Your task to perform on an android device: Search for flights from Mexico city to Seattle Image 0: 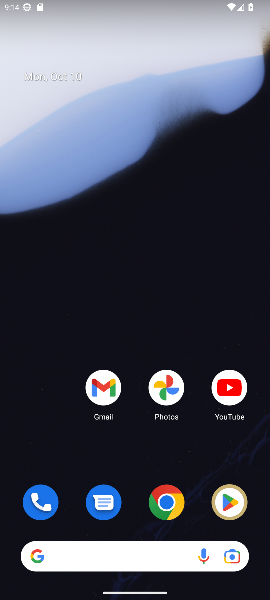
Step 0: click (129, 547)
Your task to perform on an android device: Search for flights from Mexico city to Seattle Image 1: 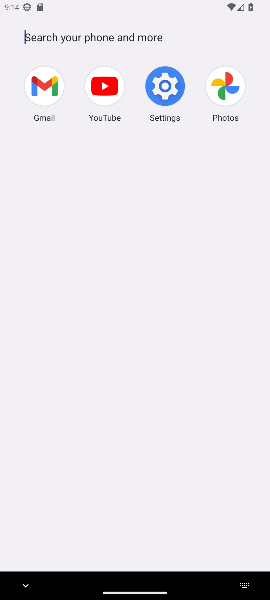
Step 1: type "flights from Mexico city to Seattle"
Your task to perform on an android device: Search for flights from Mexico city to Seattle Image 2: 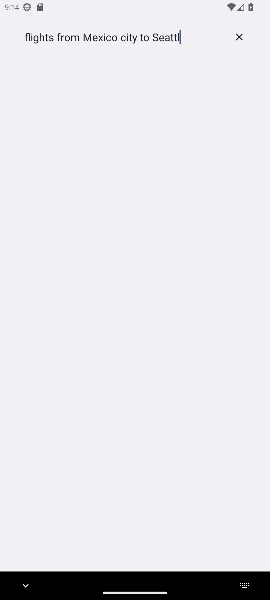
Step 2: type ""
Your task to perform on an android device: Search for flights from Mexico city to Seattle Image 3: 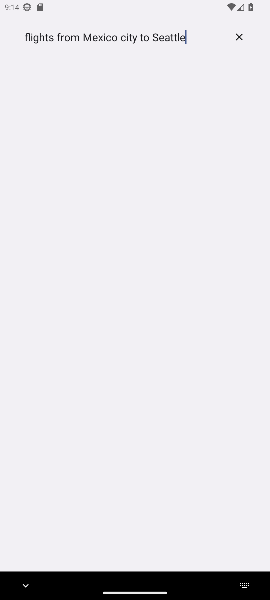
Step 3: press enter
Your task to perform on an android device: Search for flights from Mexico city to Seattle Image 4: 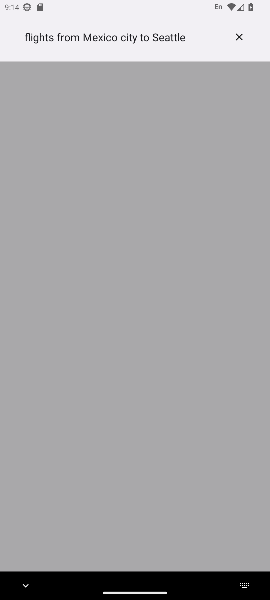
Step 4: press enter
Your task to perform on an android device: Search for flights from Mexico city to Seattle Image 5: 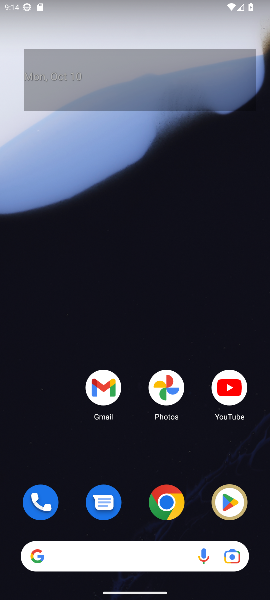
Step 5: click (133, 556)
Your task to perform on an android device: Search for flights from Mexico city to Seattle Image 6: 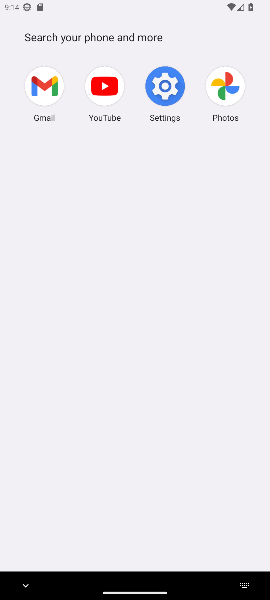
Step 6: type "flights from Mexico city to Seattle"
Your task to perform on an android device: Search for flights from Mexico city to Seattle Image 7: 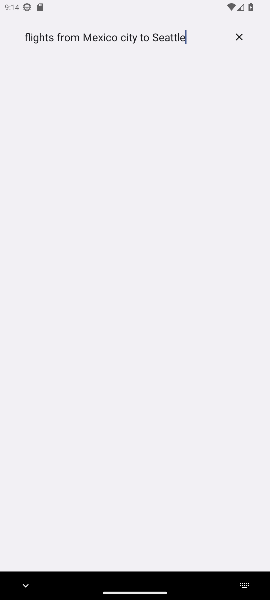
Step 7: type ""
Your task to perform on an android device: Search for flights from Mexico city to Seattle Image 8: 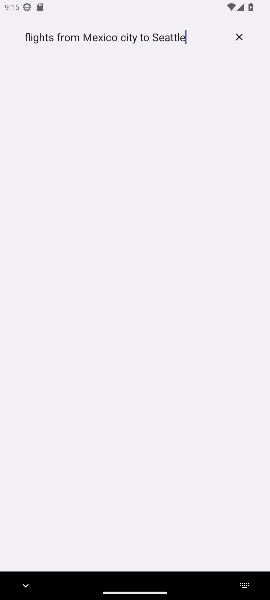
Step 8: press enter
Your task to perform on an android device: Search for flights from Mexico city to Seattle Image 9: 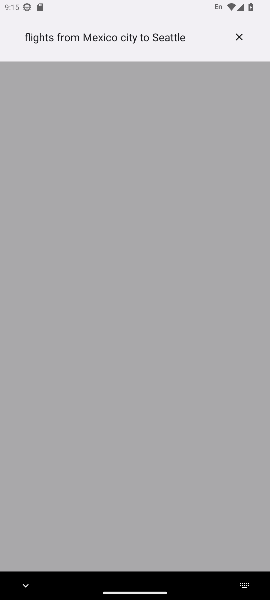
Step 9: press enter
Your task to perform on an android device: Search for flights from Mexico city to Seattle Image 10: 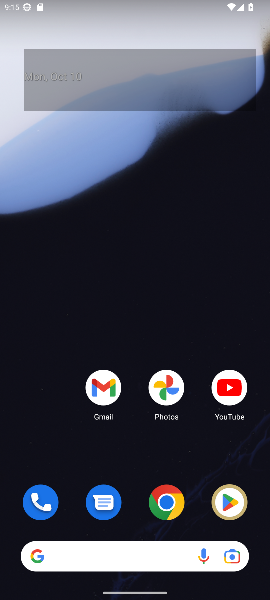
Step 10: click (118, 116)
Your task to perform on an android device: Search for flights from Mexico city to Seattle Image 11: 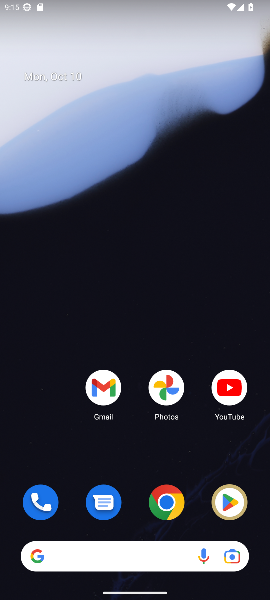
Step 11: click (164, 503)
Your task to perform on an android device: Search for flights from Mexico city to Seattle Image 12: 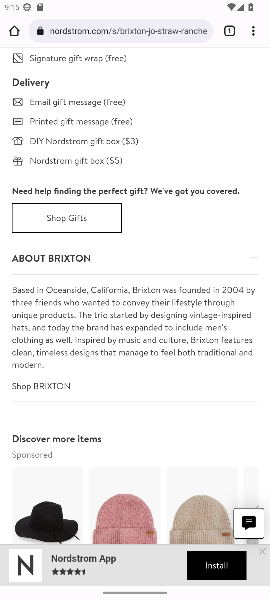
Step 12: click (137, 27)
Your task to perform on an android device: Search for flights from Mexico city to Seattle Image 13: 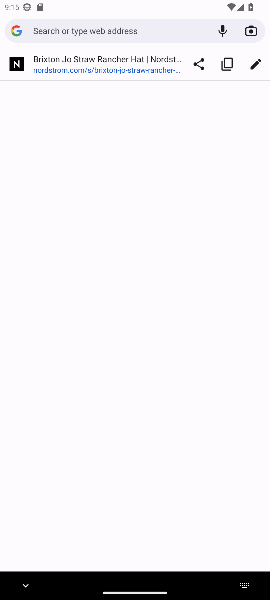
Step 13: type "flights from Mexico city to Seattle"
Your task to perform on an android device: Search for flights from Mexico city to Seattle Image 14: 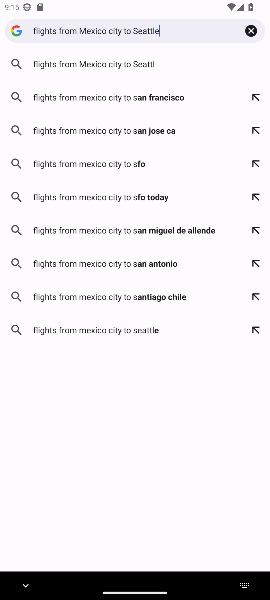
Step 14: type ""
Your task to perform on an android device: Search for flights from Mexico city to Seattle Image 15: 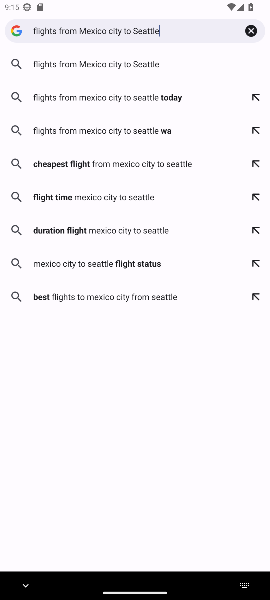
Step 15: click (116, 66)
Your task to perform on an android device: Search for flights from Mexico city to Seattle Image 16: 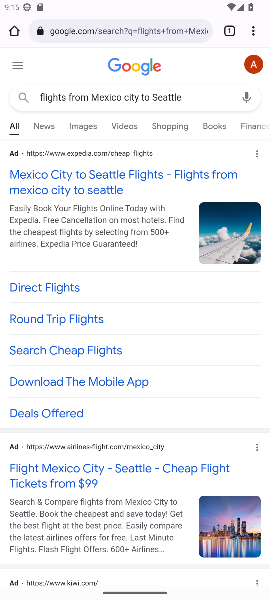
Step 16: drag from (93, 454) to (95, 150)
Your task to perform on an android device: Search for flights from Mexico city to Seattle Image 17: 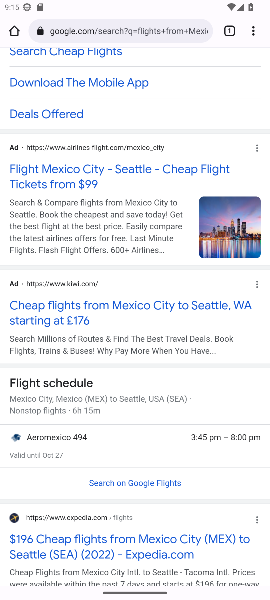
Step 17: click (88, 176)
Your task to perform on an android device: Search for flights from Mexico city to Seattle Image 18: 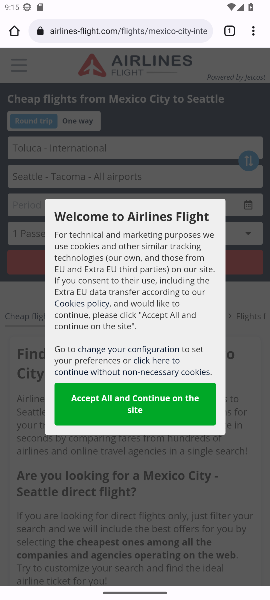
Step 18: click (133, 417)
Your task to perform on an android device: Search for flights from Mexico city to Seattle Image 19: 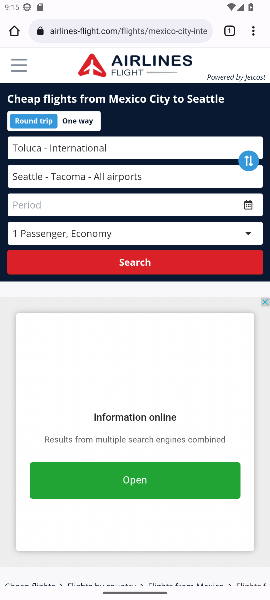
Step 19: drag from (149, 447) to (139, 253)
Your task to perform on an android device: Search for flights from Mexico city to Seattle Image 20: 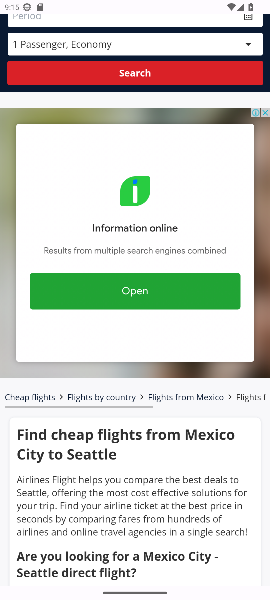
Step 20: drag from (170, 417) to (172, 155)
Your task to perform on an android device: Search for flights from Mexico city to Seattle Image 21: 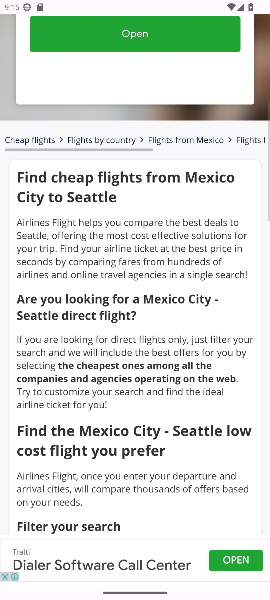
Step 21: drag from (179, 381) to (185, 181)
Your task to perform on an android device: Search for flights from Mexico city to Seattle Image 22: 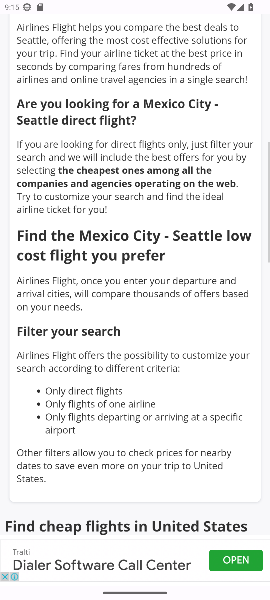
Step 22: drag from (228, 416) to (225, 160)
Your task to perform on an android device: Search for flights from Mexico city to Seattle Image 23: 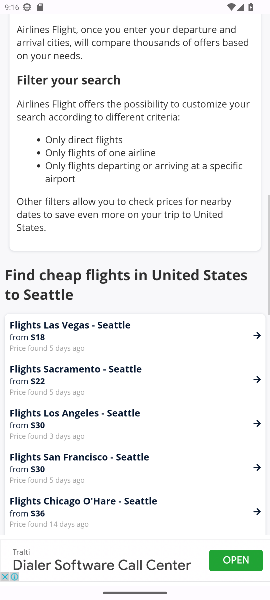
Step 23: drag from (215, 401) to (220, 149)
Your task to perform on an android device: Search for flights from Mexico city to Seattle Image 24: 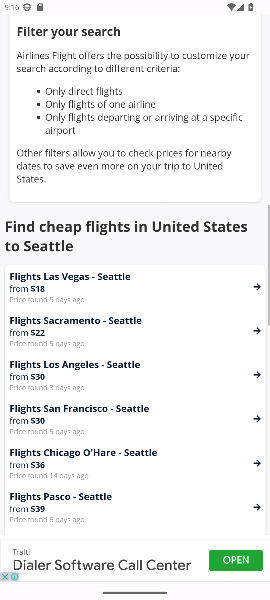
Step 24: press back button
Your task to perform on an android device: Search for flights from Mexico city to Seattle Image 25: 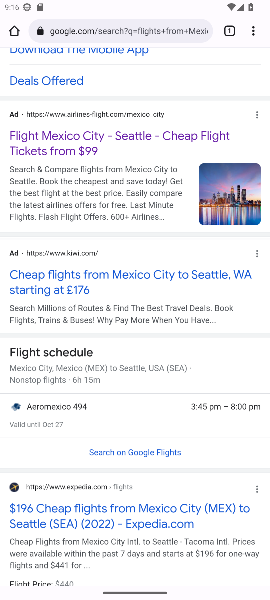
Step 25: drag from (136, 400) to (162, 70)
Your task to perform on an android device: Search for flights from Mexico city to Seattle Image 26: 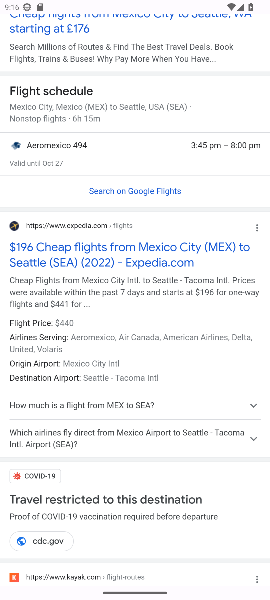
Step 26: click (167, 257)
Your task to perform on an android device: Search for flights from Mexico city to Seattle Image 27: 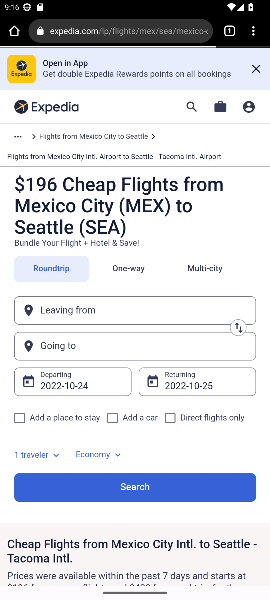
Step 27: drag from (167, 464) to (182, 107)
Your task to perform on an android device: Search for flights from Mexico city to Seattle Image 28: 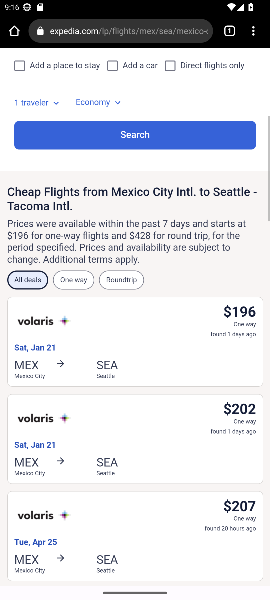
Step 28: drag from (168, 427) to (182, 155)
Your task to perform on an android device: Search for flights from Mexico city to Seattle Image 29: 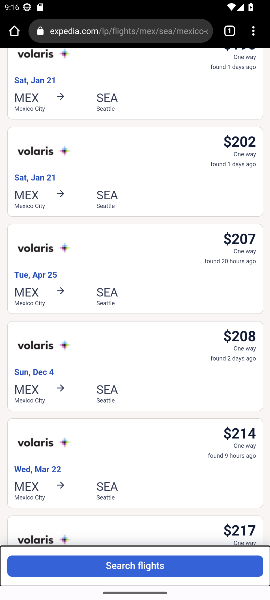
Step 29: drag from (174, 333) to (160, 144)
Your task to perform on an android device: Search for flights from Mexico city to Seattle Image 30: 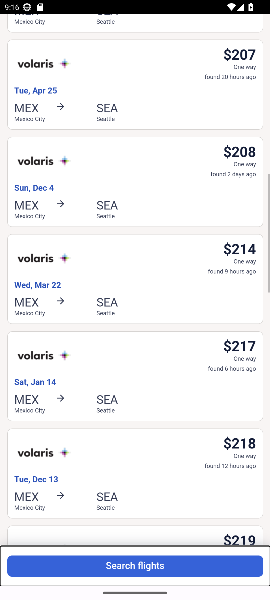
Step 30: drag from (159, 336) to (156, 130)
Your task to perform on an android device: Search for flights from Mexico city to Seattle Image 31: 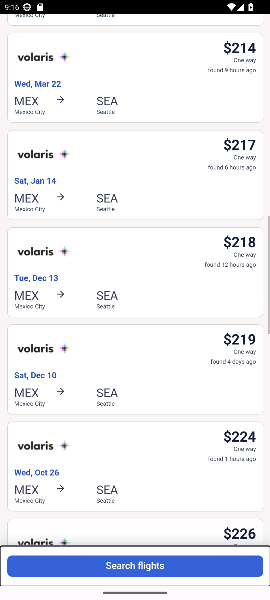
Step 31: drag from (154, 331) to (158, 165)
Your task to perform on an android device: Search for flights from Mexico city to Seattle Image 32: 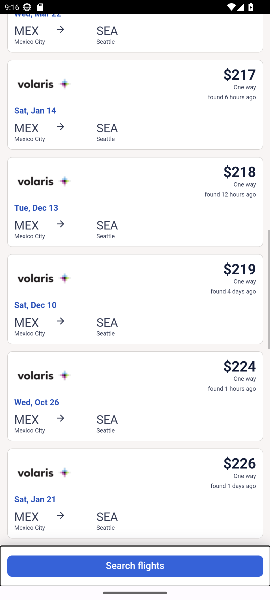
Step 32: drag from (159, 303) to (149, 164)
Your task to perform on an android device: Search for flights from Mexico city to Seattle Image 33: 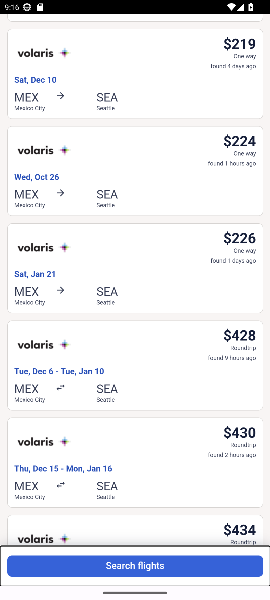
Step 33: drag from (164, 356) to (160, 154)
Your task to perform on an android device: Search for flights from Mexico city to Seattle Image 34: 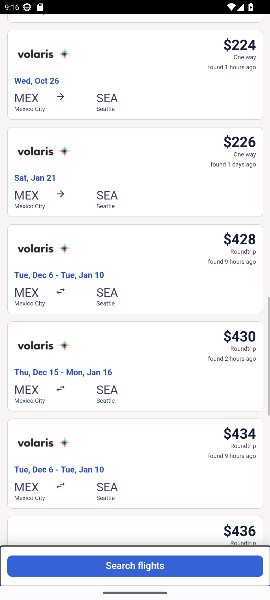
Step 34: drag from (172, 405) to (162, 140)
Your task to perform on an android device: Search for flights from Mexico city to Seattle Image 35: 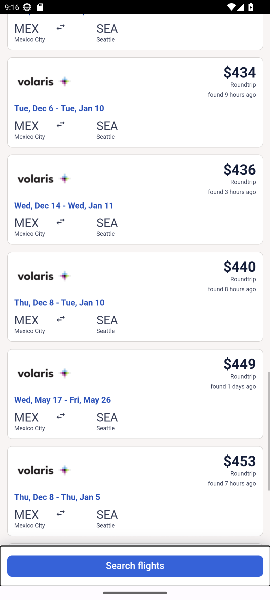
Step 35: drag from (153, 373) to (143, 183)
Your task to perform on an android device: Search for flights from Mexico city to Seattle Image 36: 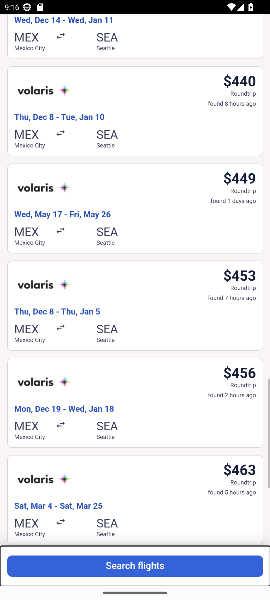
Step 36: drag from (165, 377) to (164, 206)
Your task to perform on an android device: Search for flights from Mexico city to Seattle Image 37: 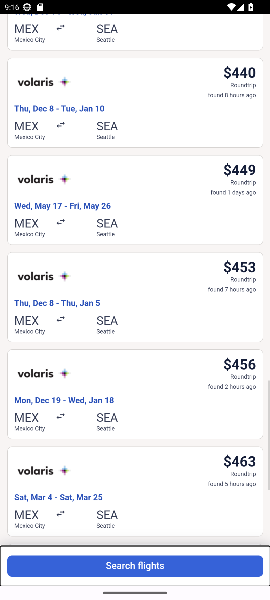
Step 37: drag from (162, 304) to (166, 216)
Your task to perform on an android device: Search for flights from Mexico city to Seattle Image 38: 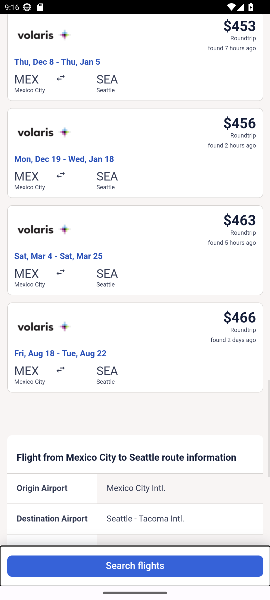
Step 38: drag from (181, 367) to (191, 187)
Your task to perform on an android device: Search for flights from Mexico city to Seattle Image 39: 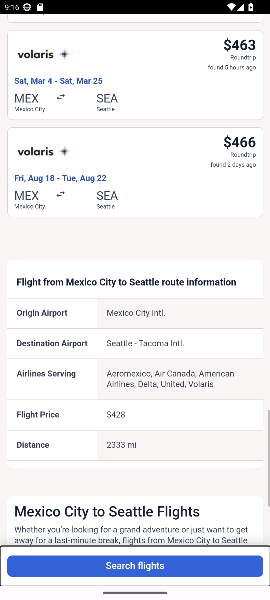
Step 39: drag from (195, 383) to (193, 159)
Your task to perform on an android device: Search for flights from Mexico city to Seattle Image 40: 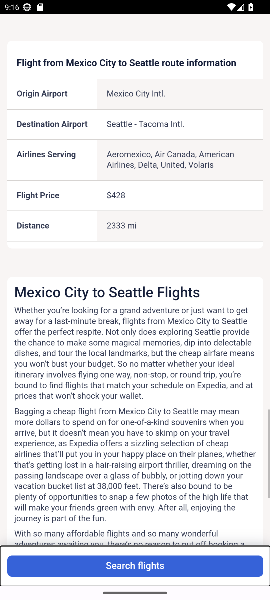
Step 40: drag from (206, 391) to (224, 163)
Your task to perform on an android device: Search for flights from Mexico city to Seattle Image 41: 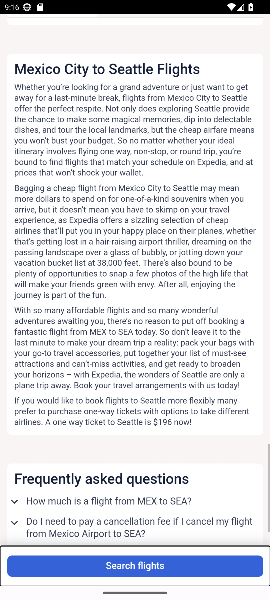
Step 41: drag from (233, 446) to (200, 150)
Your task to perform on an android device: Search for flights from Mexico city to Seattle Image 42: 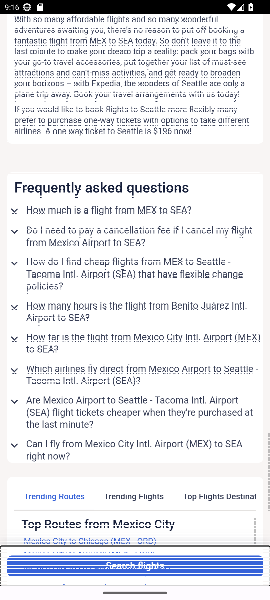
Step 42: drag from (202, 400) to (192, 144)
Your task to perform on an android device: Search for flights from Mexico city to Seattle Image 43: 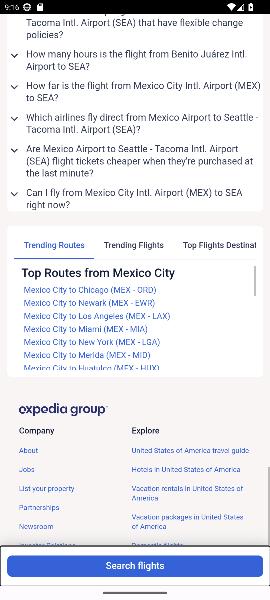
Step 43: drag from (170, 426) to (193, 181)
Your task to perform on an android device: Search for flights from Mexico city to Seattle Image 44: 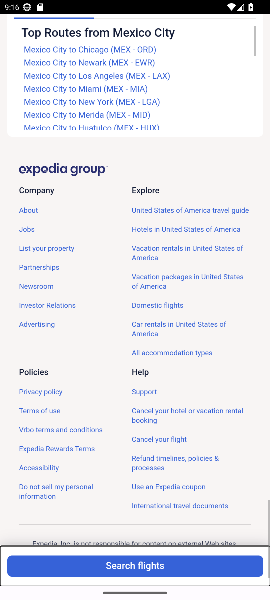
Step 44: drag from (199, 383) to (193, 167)
Your task to perform on an android device: Search for flights from Mexico city to Seattle Image 45: 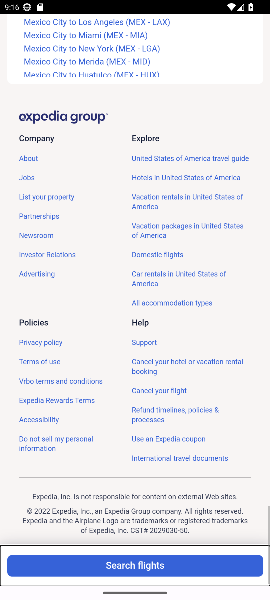
Step 45: drag from (244, 401) to (246, 173)
Your task to perform on an android device: Search for flights from Mexico city to Seattle Image 46: 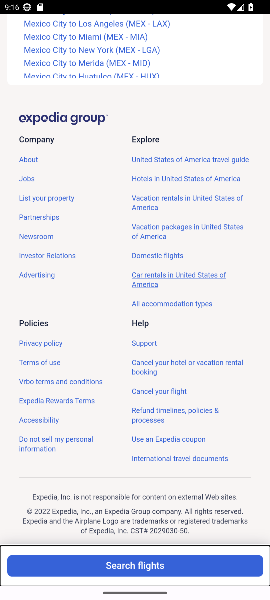
Step 46: drag from (268, 358) to (261, 214)
Your task to perform on an android device: Search for flights from Mexico city to Seattle Image 47: 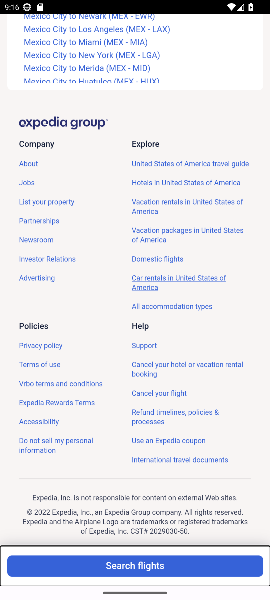
Step 47: drag from (225, 161) to (218, 408)
Your task to perform on an android device: Search for flights from Mexico city to Seattle Image 48: 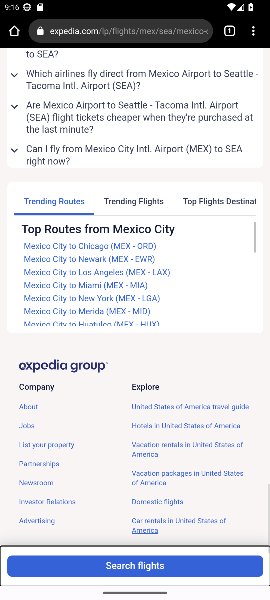
Step 48: press back button
Your task to perform on an android device: Search for flights from Mexico city to Seattle Image 49: 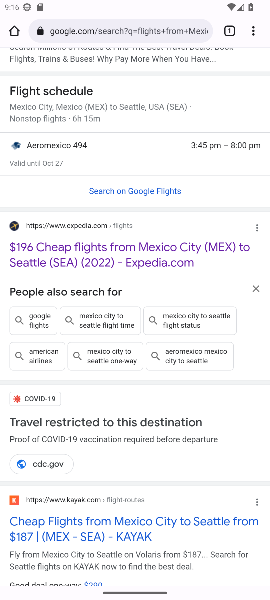
Step 49: click (136, 534)
Your task to perform on an android device: Search for flights from Mexico city to Seattle Image 50: 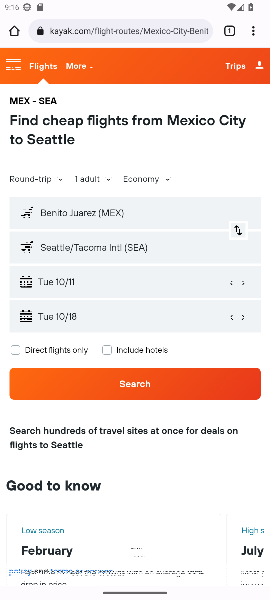
Step 50: drag from (151, 448) to (167, 158)
Your task to perform on an android device: Search for flights from Mexico city to Seattle Image 51: 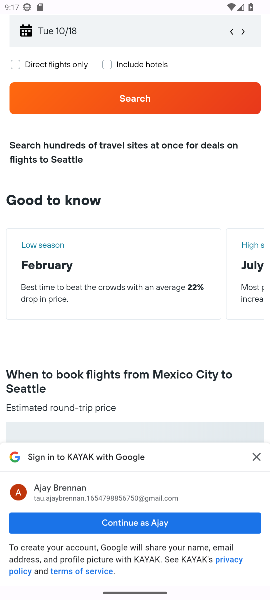
Step 51: click (225, 522)
Your task to perform on an android device: Search for flights from Mexico city to Seattle Image 52: 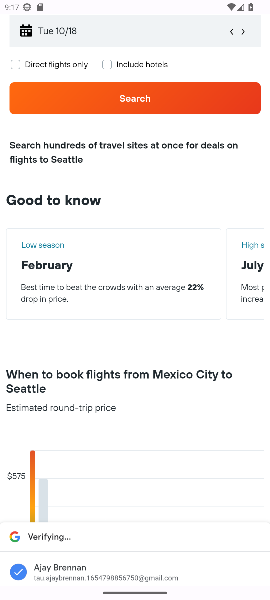
Step 52: drag from (219, 480) to (167, 220)
Your task to perform on an android device: Search for flights from Mexico city to Seattle Image 53: 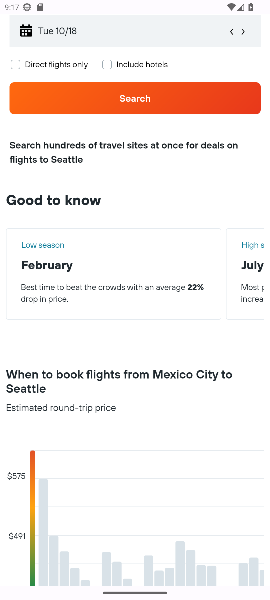
Step 53: drag from (161, 372) to (172, 229)
Your task to perform on an android device: Search for flights from Mexico city to Seattle Image 54: 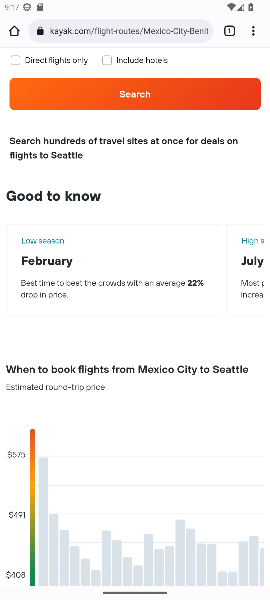
Step 54: drag from (181, 429) to (160, 109)
Your task to perform on an android device: Search for flights from Mexico city to Seattle Image 55: 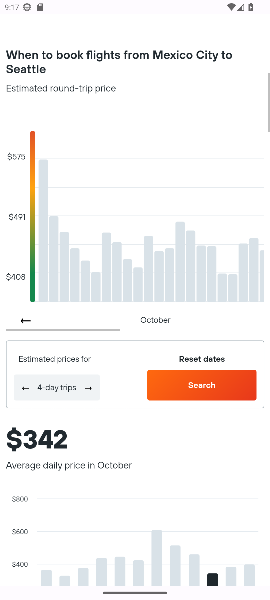
Step 55: drag from (199, 454) to (209, 168)
Your task to perform on an android device: Search for flights from Mexico city to Seattle Image 56: 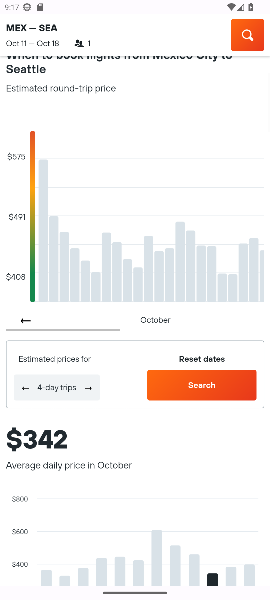
Step 56: drag from (177, 428) to (145, 151)
Your task to perform on an android device: Search for flights from Mexico city to Seattle Image 57: 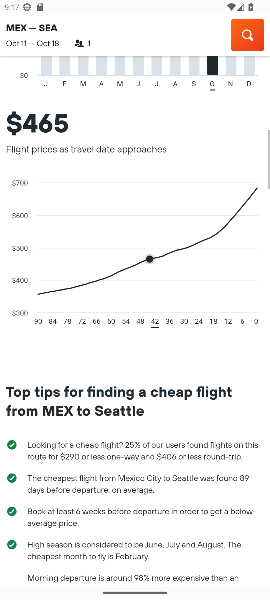
Step 57: drag from (142, 452) to (165, 209)
Your task to perform on an android device: Search for flights from Mexico city to Seattle Image 58: 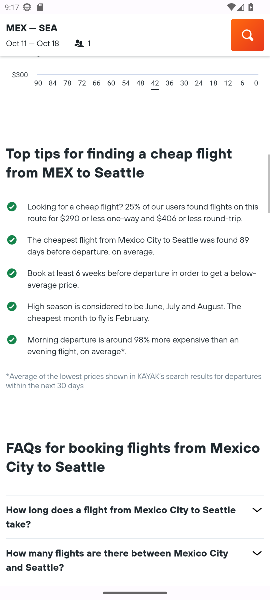
Step 58: drag from (194, 448) to (183, 211)
Your task to perform on an android device: Search for flights from Mexico city to Seattle Image 59: 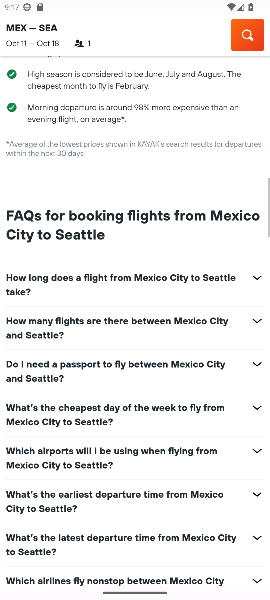
Step 59: drag from (179, 476) to (192, 194)
Your task to perform on an android device: Search for flights from Mexico city to Seattle Image 60: 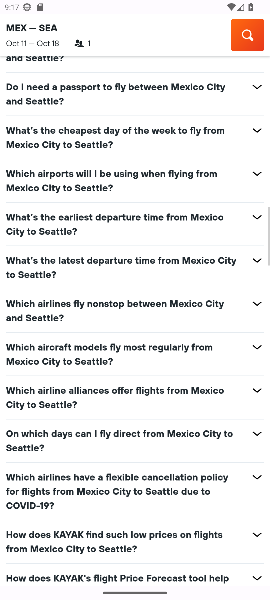
Step 60: drag from (204, 463) to (195, 175)
Your task to perform on an android device: Search for flights from Mexico city to Seattle Image 61: 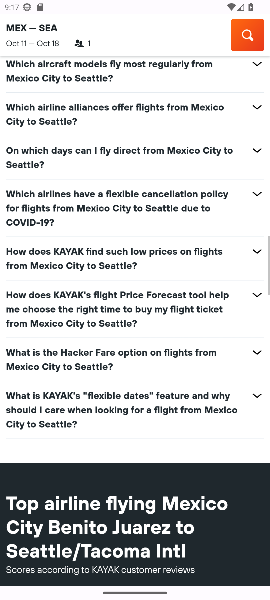
Step 61: drag from (179, 470) to (168, 149)
Your task to perform on an android device: Search for flights from Mexico city to Seattle Image 62: 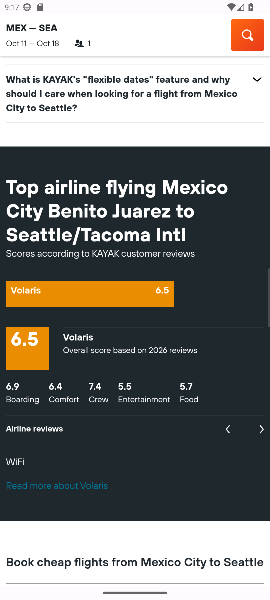
Step 62: drag from (152, 398) to (179, 82)
Your task to perform on an android device: Search for flights from Mexico city to Seattle Image 63: 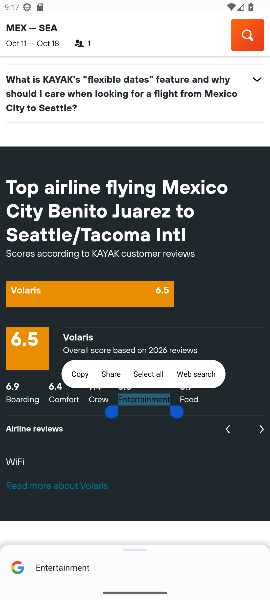
Step 63: drag from (194, 427) to (190, 131)
Your task to perform on an android device: Search for flights from Mexico city to Seattle Image 64: 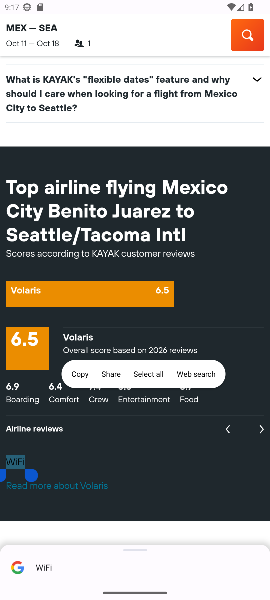
Step 64: click (207, 475)
Your task to perform on an android device: Search for flights from Mexico city to Seattle Image 65: 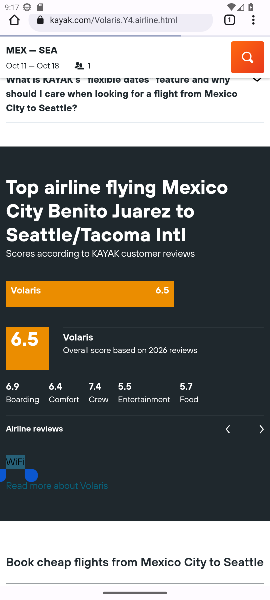
Step 65: task complete